Your task to perform on an android device: Look up the best rated kitchen knives on Amazon. Image 0: 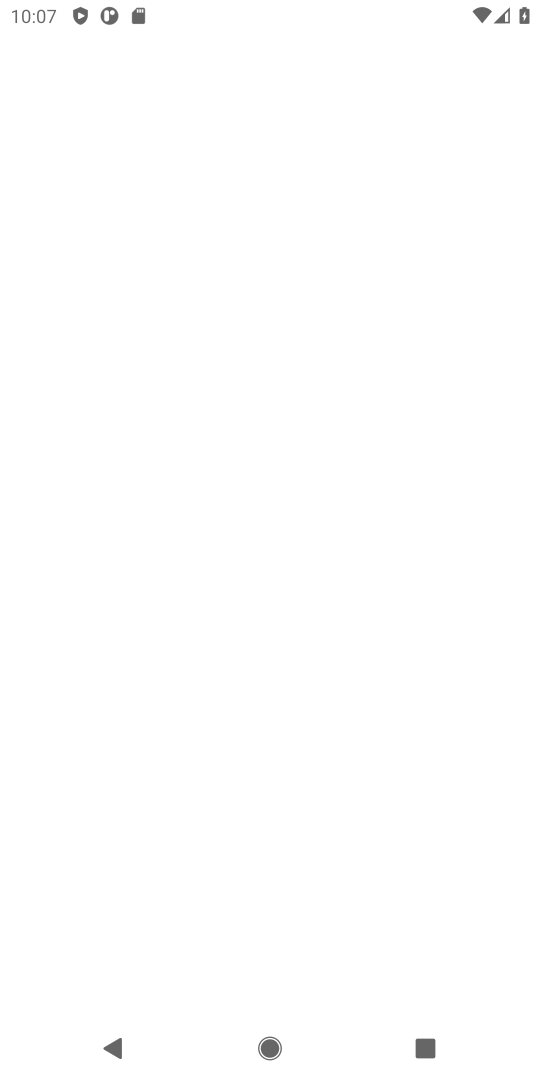
Step 0: press home button
Your task to perform on an android device: Look up the best rated kitchen knives on Amazon. Image 1: 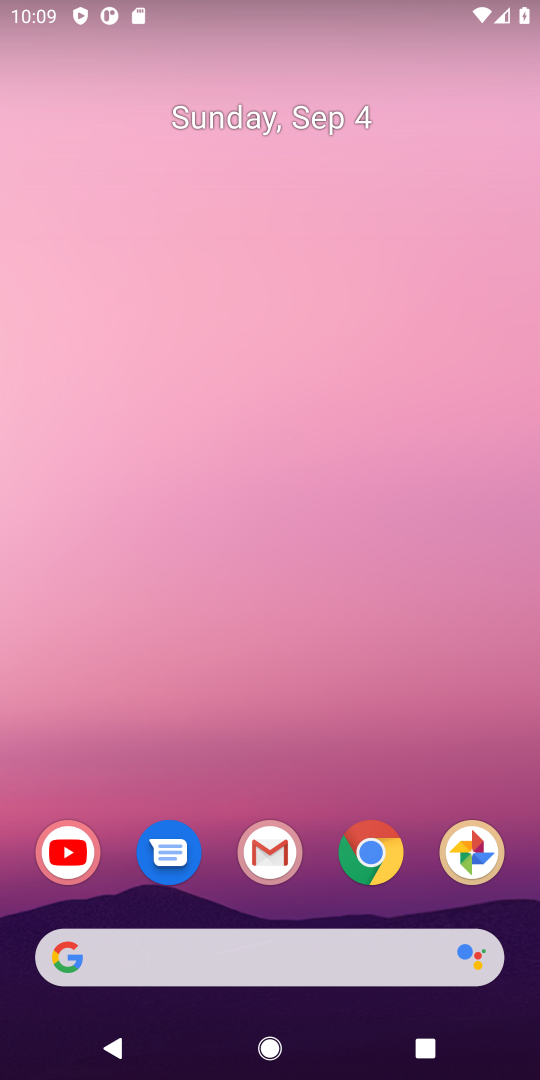
Step 1: drag from (440, 921) to (420, 273)
Your task to perform on an android device: Look up the best rated kitchen knives on Amazon. Image 2: 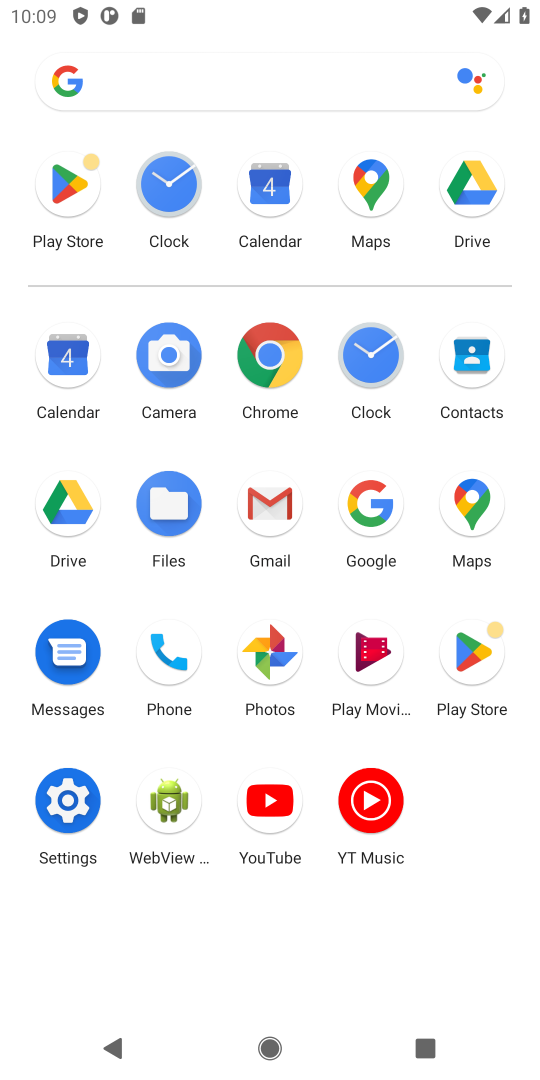
Step 2: click (374, 499)
Your task to perform on an android device: Look up the best rated kitchen knives on Amazon. Image 3: 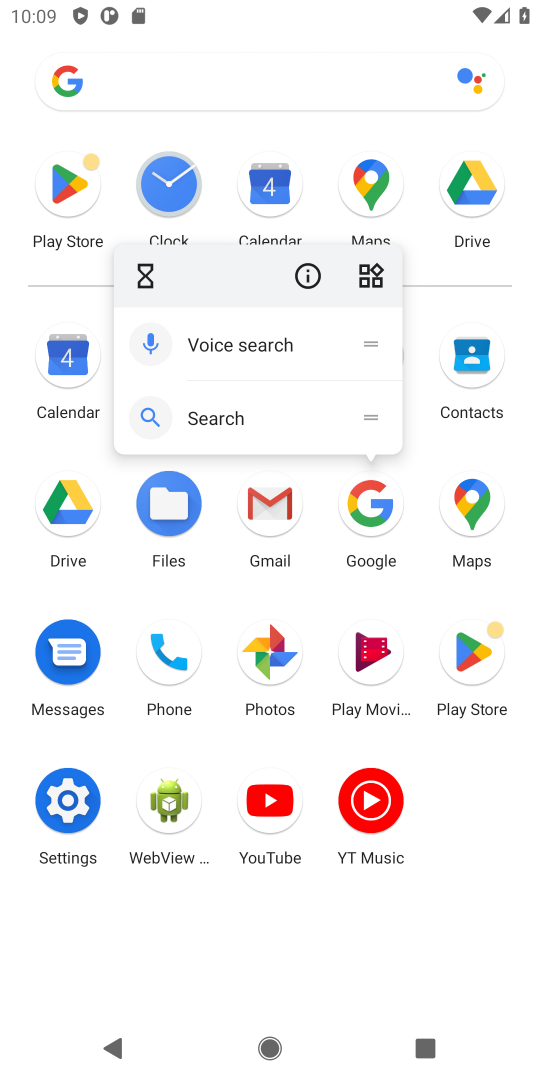
Step 3: click (374, 499)
Your task to perform on an android device: Look up the best rated kitchen knives on Amazon. Image 4: 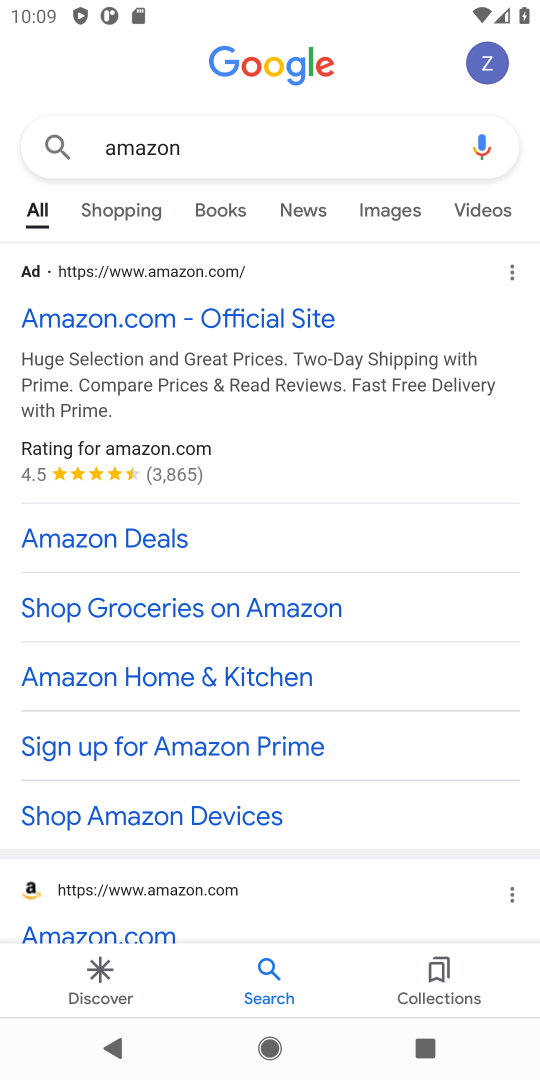
Step 4: click (299, 321)
Your task to perform on an android device: Look up the best rated kitchen knives on Amazon. Image 5: 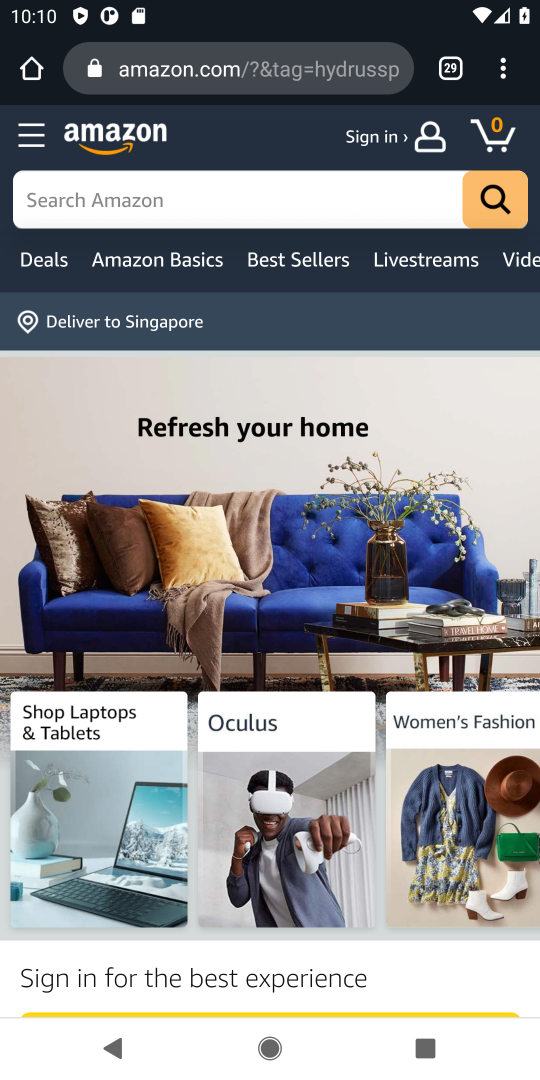
Step 5: click (237, 174)
Your task to perform on an android device: Look up the best rated kitchen knives on Amazon. Image 6: 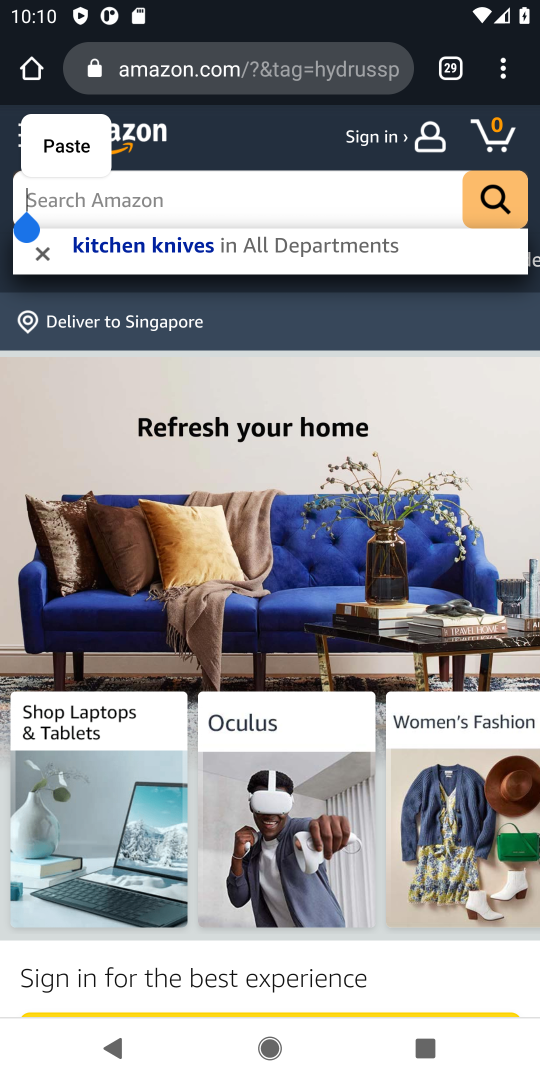
Step 6: click (126, 253)
Your task to perform on an android device: Look up the best rated kitchen knives on Amazon. Image 7: 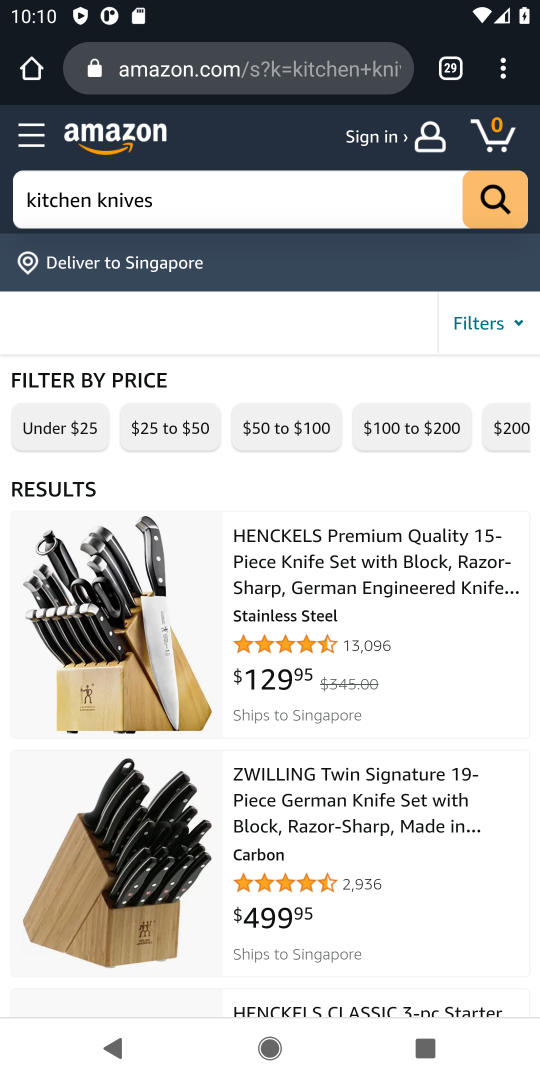
Step 7: task complete